Your task to perform on an android device: delete a single message in the gmail app Image 0: 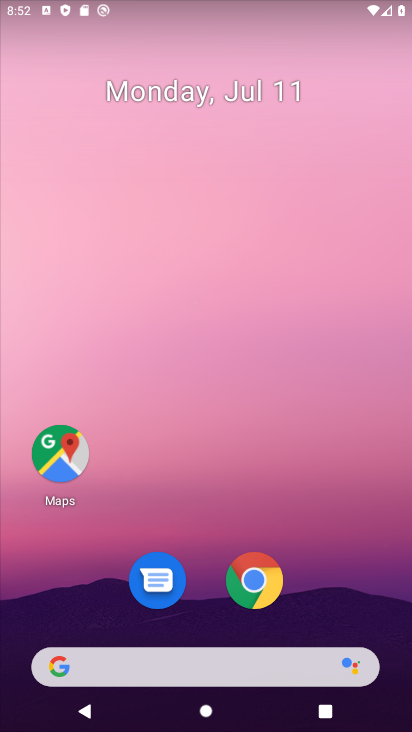
Step 0: drag from (278, 512) to (241, 2)
Your task to perform on an android device: delete a single message in the gmail app Image 1: 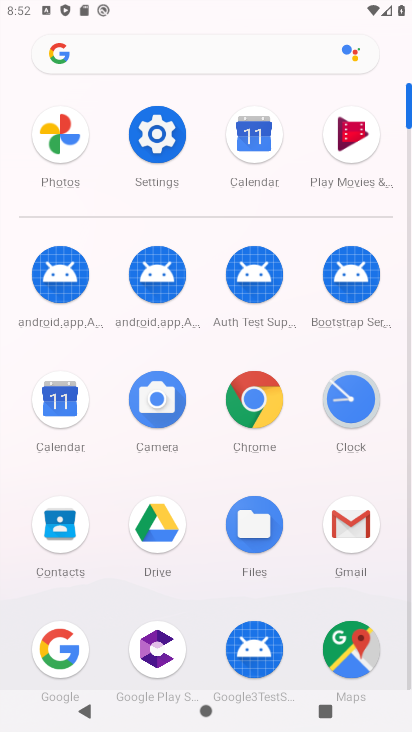
Step 1: click (335, 528)
Your task to perform on an android device: delete a single message in the gmail app Image 2: 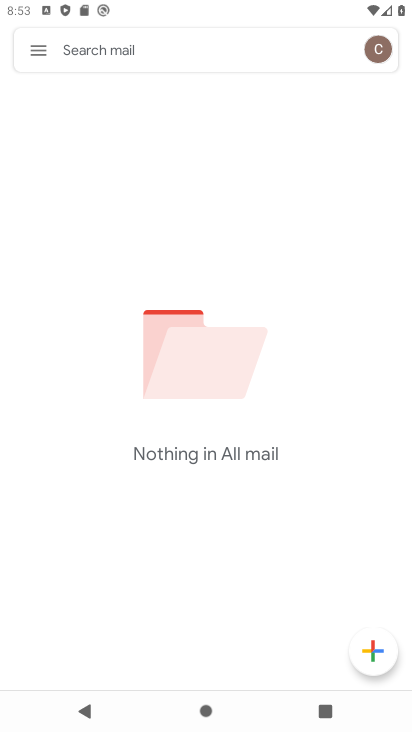
Step 2: task complete